Your task to perform on an android device: Go to accessibility settings Image 0: 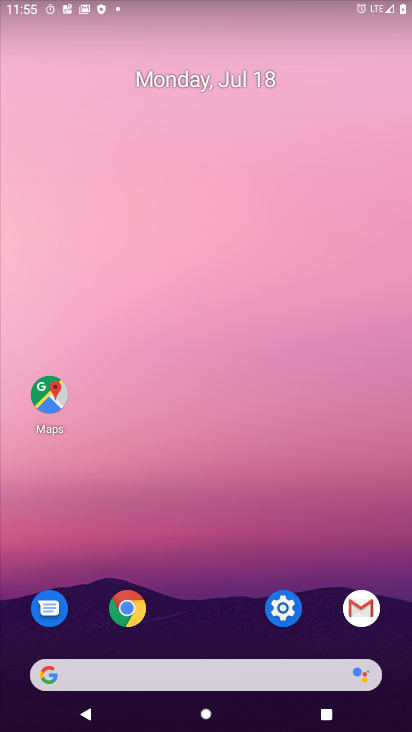
Step 0: click (292, 614)
Your task to perform on an android device: Go to accessibility settings Image 1: 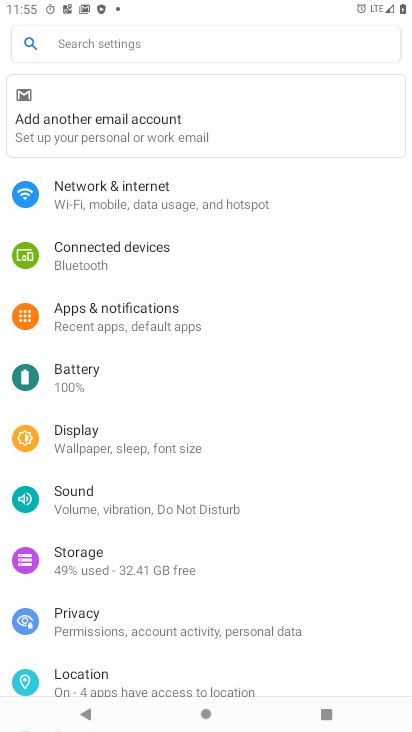
Step 1: click (103, 49)
Your task to perform on an android device: Go to accessibility settings Image 2: 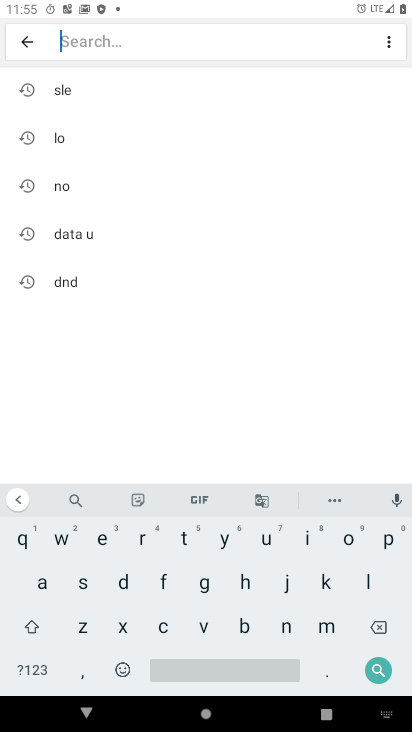
Step 2: click (36, 588)
Your task to perform on an android device: Go to accessibility settings Image 3: 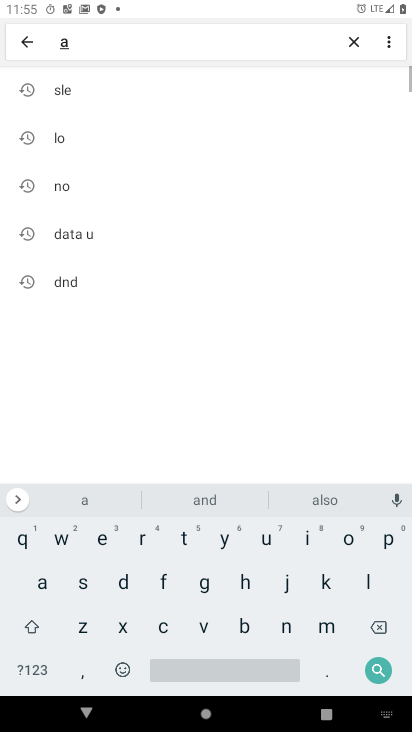
Step 3: click (167, 627)
Your task to perform on an android device: Go to accessibility settings Image 4: 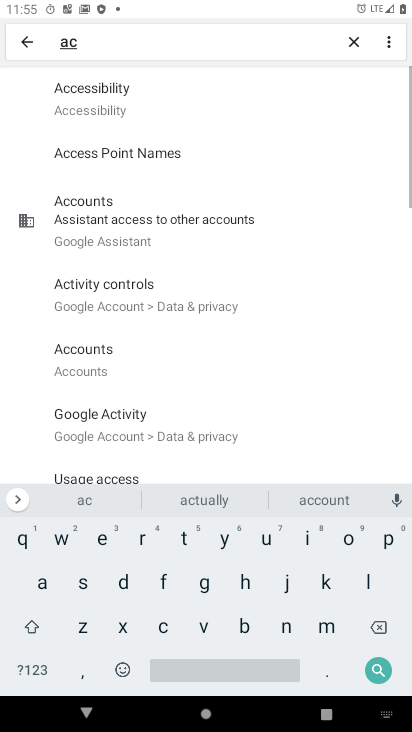
Step 4: click (104, 87)
Your task to perform on an android device: Go to accessibility settings Image 5: 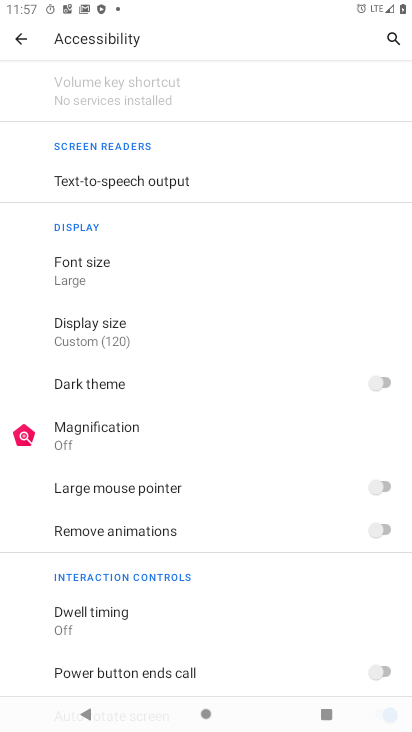
Step 5: task complete